Your task to perform on an android device: check out phone information Image 0: 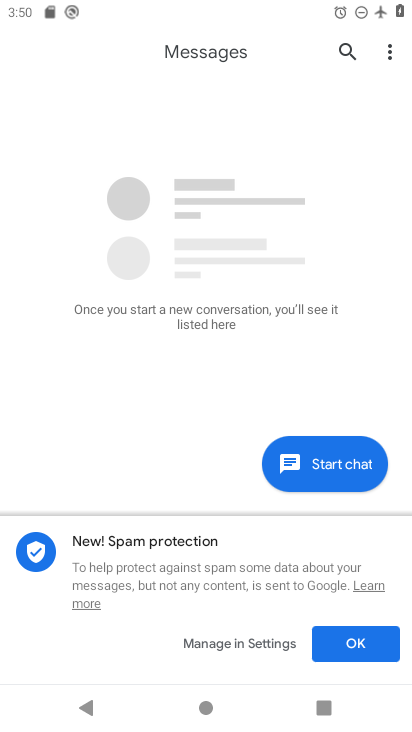
Step 0: press home button
Your task to perform on an android device: check out phone information Image 1: 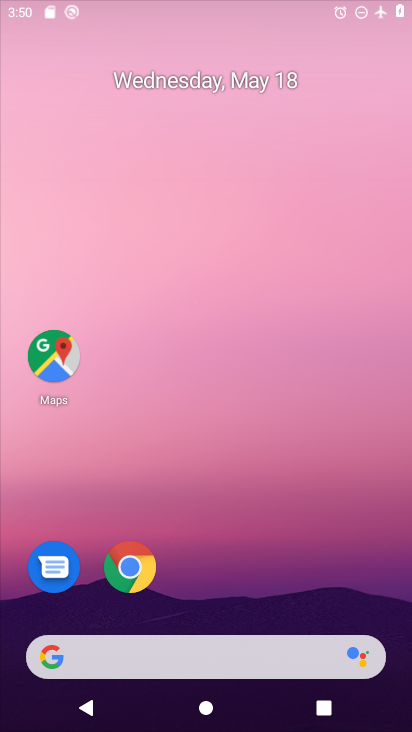
Step 1: drag from (166, 430) to (197, 203)
Your task to perform on an android device: check out phone information Image 2: 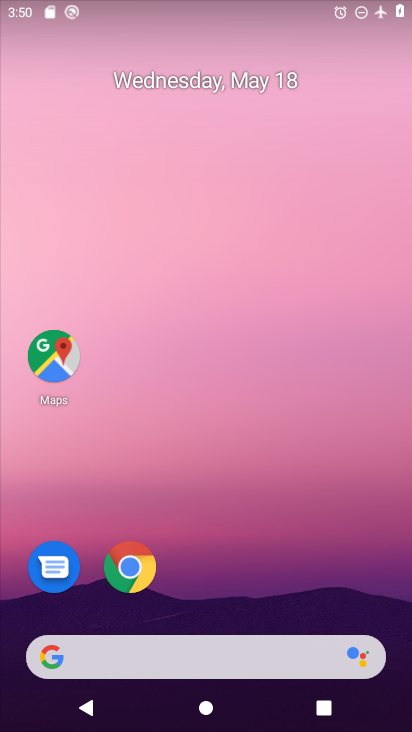
Step 2: drag from (259, 526) to (310, 128)
Your task to perform on an android device: check out phone information Image 3: 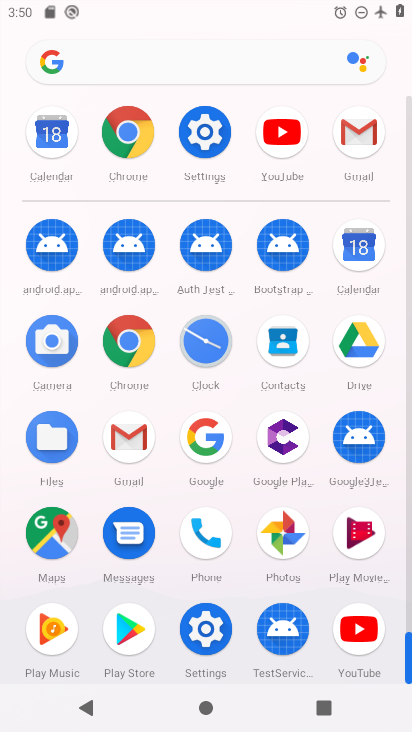
Step 3: click (218, 132)
Your task to perform on an android device: check out phone information Image 4: 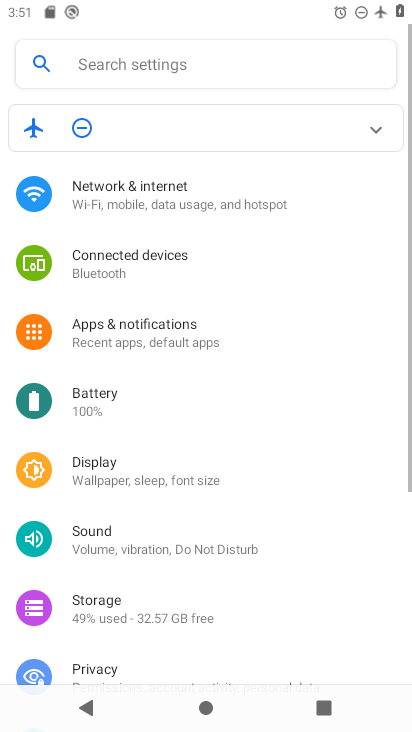
Step 4: drag from (242, 645) to (217, 163)
Your task to perform on an android device: check out phone information Image 5: 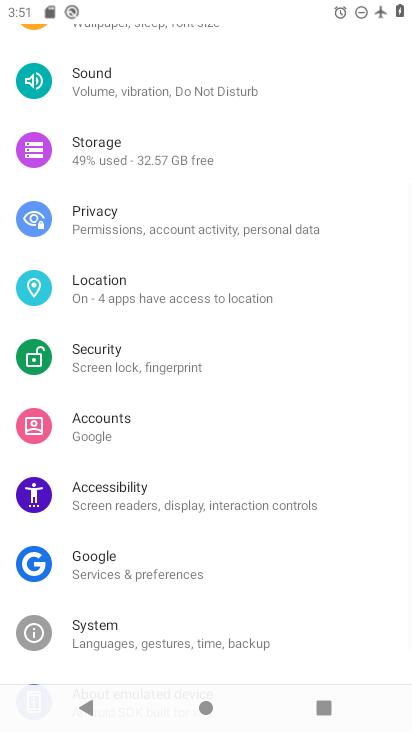
Step 5: drag from (158, 664) to (202, 223)
Your task to perform on an android device: check out phone information Image 6: 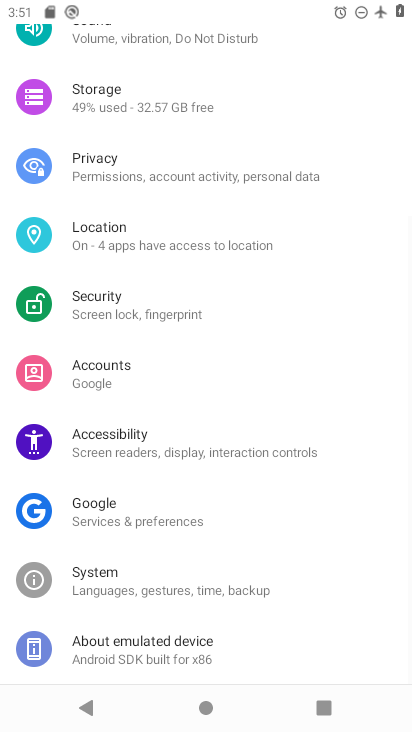
Step 6: click (149, 649)
Your task to perform on an android device: check out phone information Image 7: 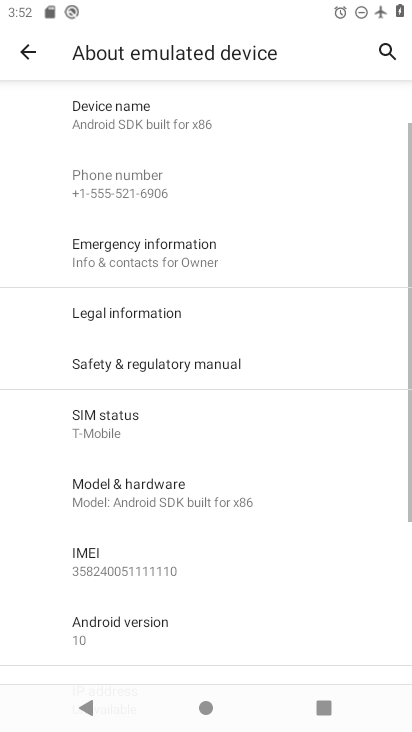
Step 7: task complete